Your task to perform on an android device: toggle airplane mode Image 0: 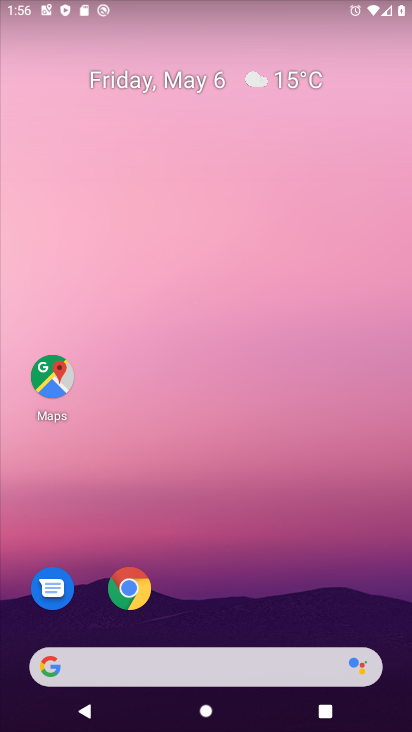
Step 0: drag from (202, 596) to (230, 143)
Your task to perform on an android device: toggle airplane mode Image 1: 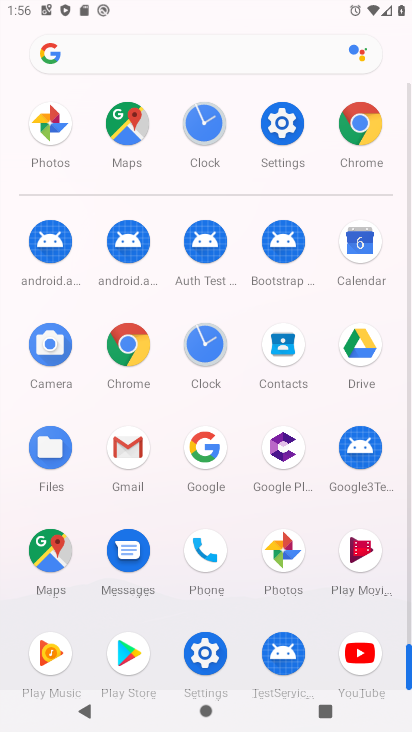
Step 1: drag from (163, 610) to (208, 233)
Your task to perform on an android device: toggle airplane mode Image 2: 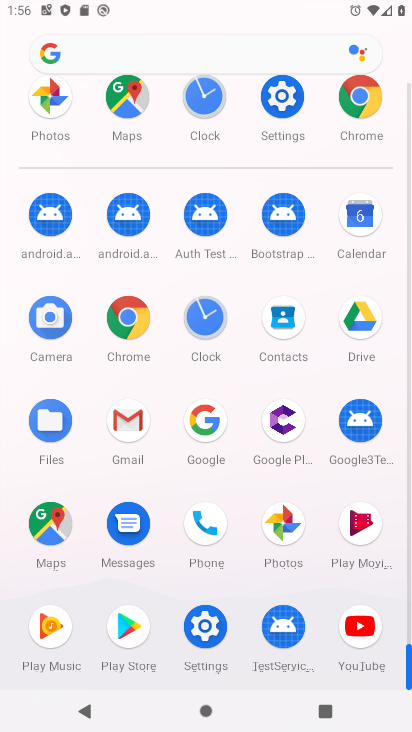
Step 2: click (212, 622)
Your task to perform on an android device: toggle airplane mode Image 3: 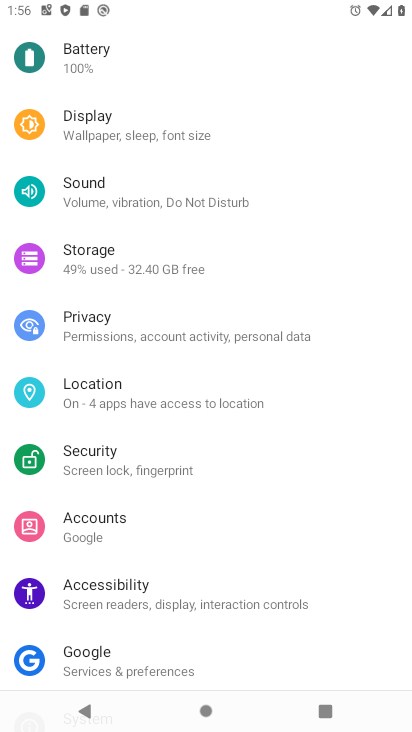
Step 3: drag from (103, 667) to (149, 410)
Your task to perform on an android device: toggle airplane mode Image 4: 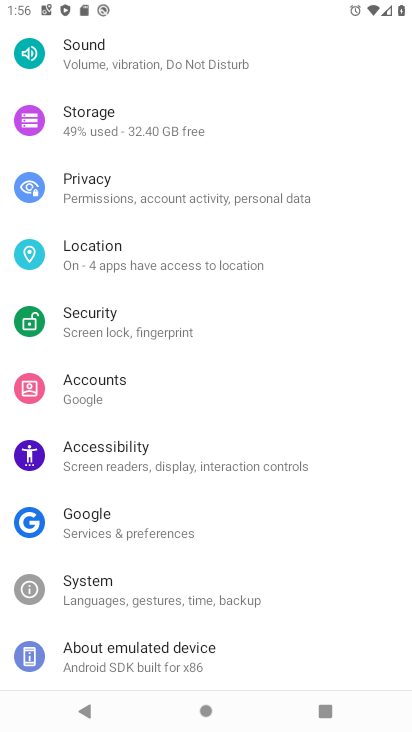
Step 4: drag from (206, 243) to (193, 643)
Your task to perform on an android device: toggle airplane mode Image 5: 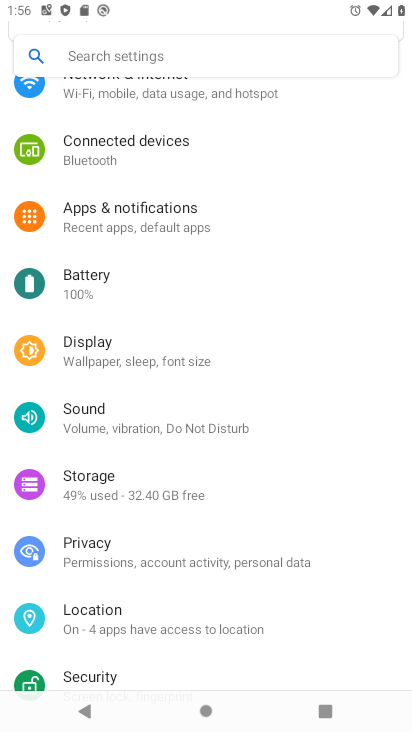
Step 5: drag from (219, 169) to (172, 568)
Your task to perform on an android device: toggle airplane mode Image 6: 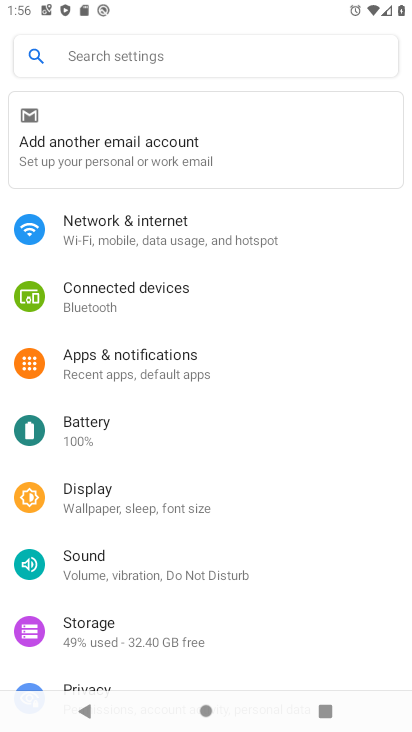
Step 6: click (132, 227)
Your task to perform on an android device: toggle airplane mode Image 7: 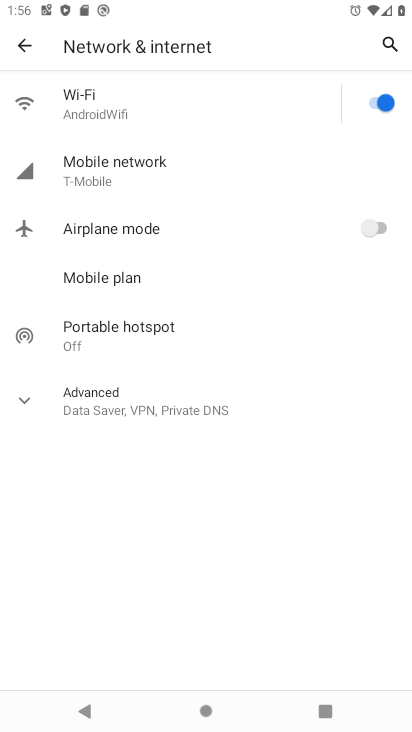
Step 7: click (195, 232)
Your task to perform on an android device: toggle airplane mode Image 8: 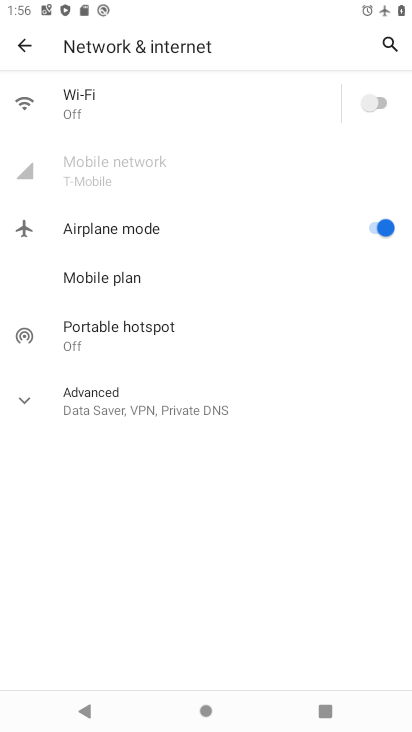
Step 8: task complete